Your task to perform on an android device: turn off notifications settings in the gmail app Image 0: 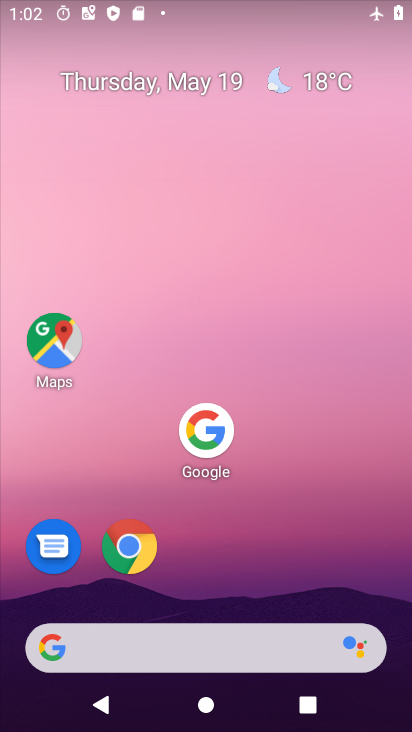
Step 0: drag from (231, 560) to (275, 99)
Your task to perform on an android device: turn off notifications settings in the gmail app Image 1: 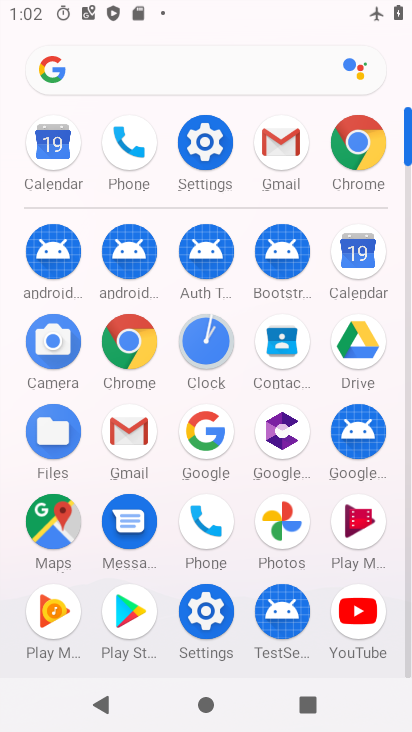
Step 1: click (291, 139)
Your task to perform on an android device: turn off notifications settings in the gmail app Image 2: 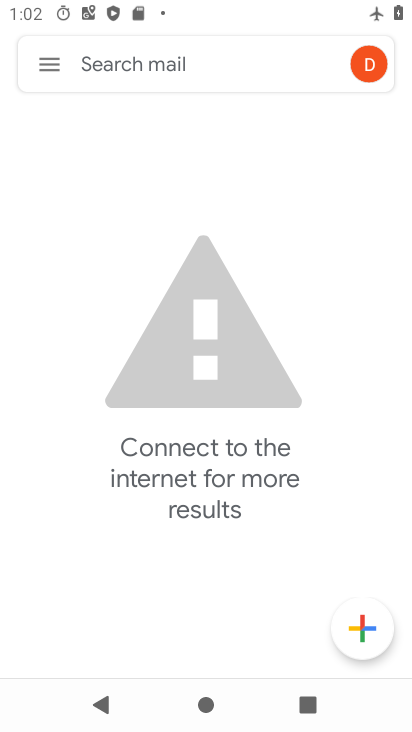
Step 2: click (53, 63)
Your task to perform on an android device: turn off notifications settings in the gmail app Image 3: 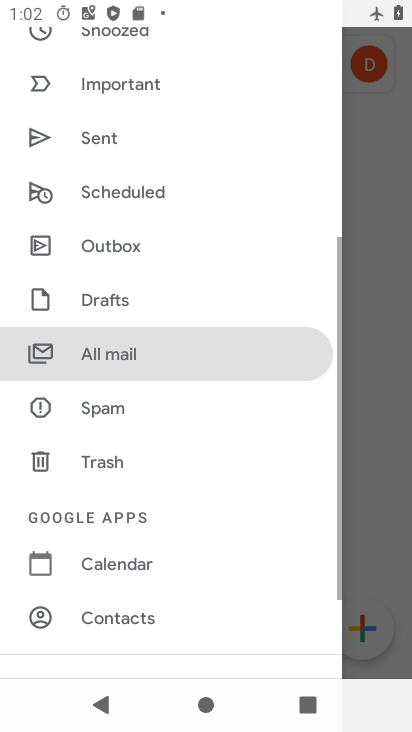
Step 3: drag from (176, 512) to (186, 118)
Your task to perform on an android device: turn off notifications settings in the gmail app Image 4: 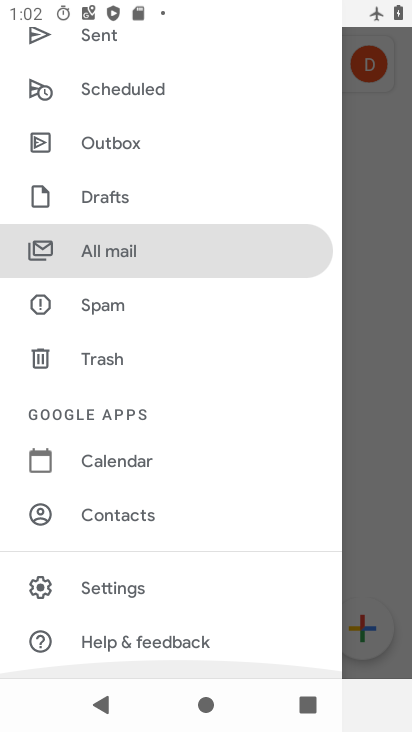
Step 4: click (138, 593)
Your task to perform on an android device: turn off notifications settings in the gmail app Image 5: 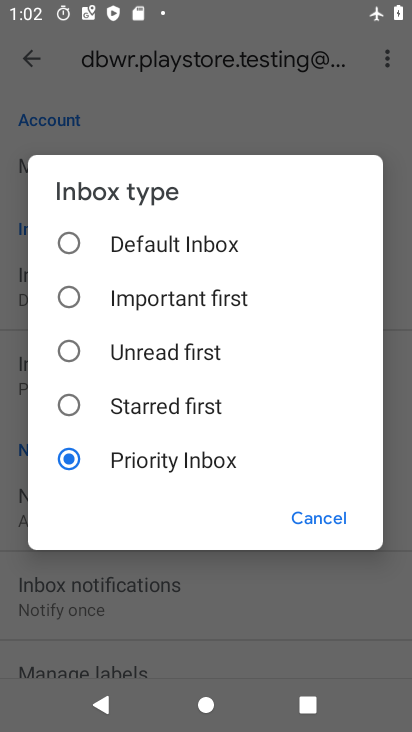
Step 5: click (316, 516)
Your task to perform on an android device: turn off notifications settings in the gmail app Image 6: 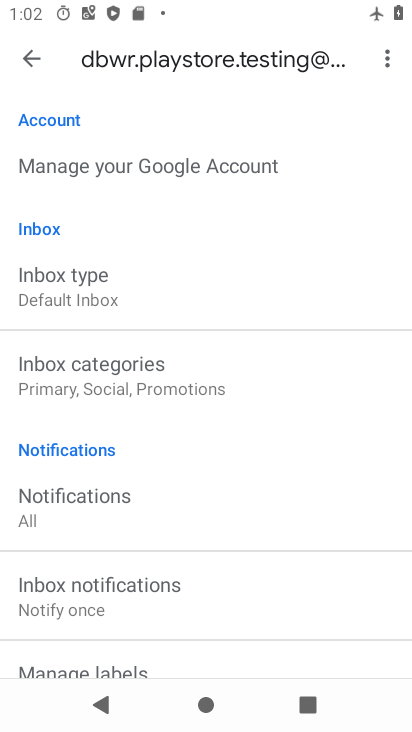
Step 6: click (111, 524)
Your task to perform on an android device: turn off notifications settings in the gmail app Image 7: 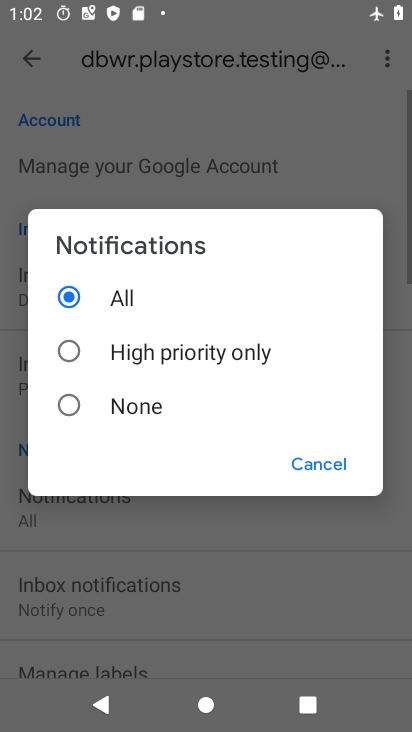
Step 7: click (69, 407)
Your task to perform on an android device: turn off notifications settings in the gmail app Image 8: 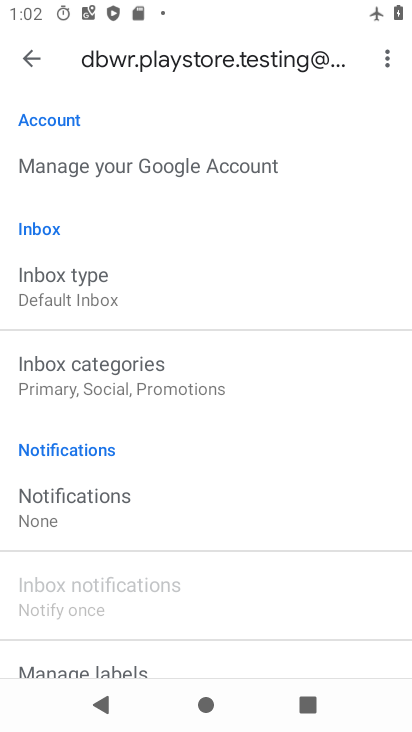
Step 8: task complete